Your task to perform on an android device: turn notification dots on Image 0: 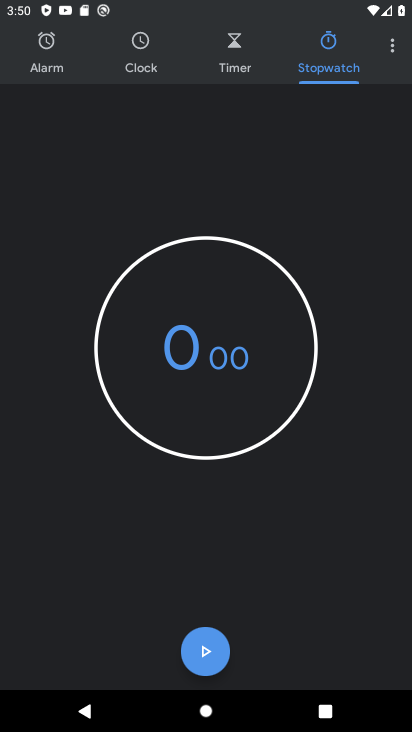
Step 0: press home button
Your task to perform on an android device: turn notification dots on Image 1: 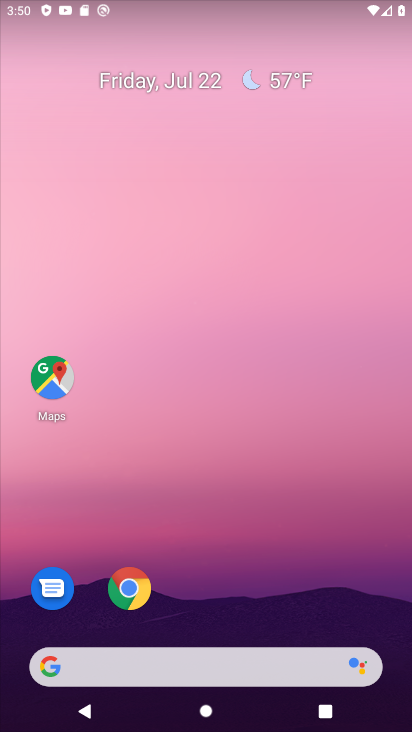
Step 1: drag from (163, 650) to (170, 58)
Your task to perform on an android device: turn notification dots on Image 2: 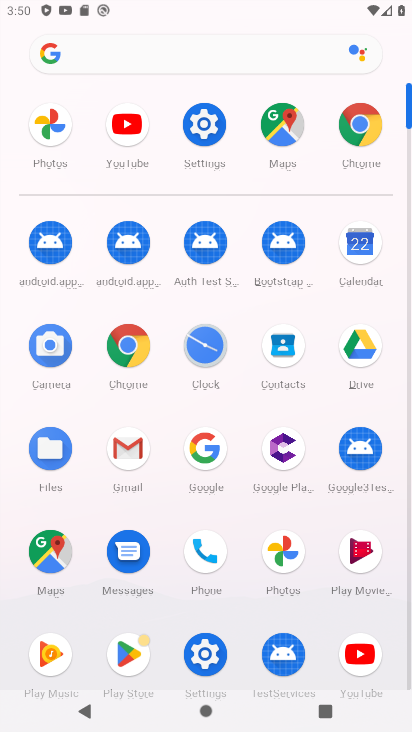
Step 2: click (222, 640)
Your task to perform on an android device: turn notification dots on Image 3: 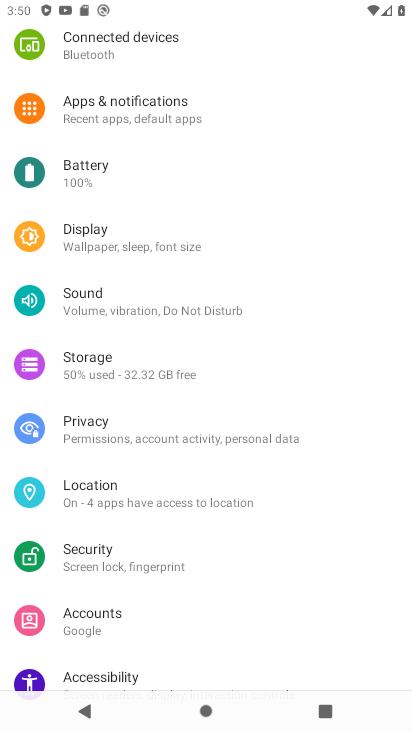
Step 3: click (129, 118)
Your task to perform on an android device: turn notification dots on Image 4: 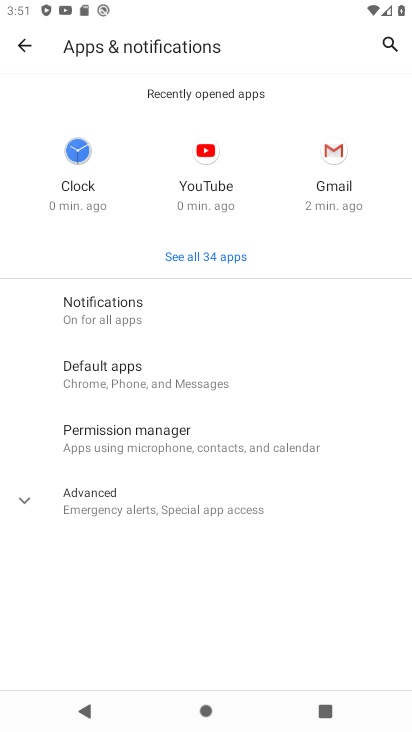
Step 4: click (115, 297)
Your task to perform on an android device: turn notification dots on Image 5: 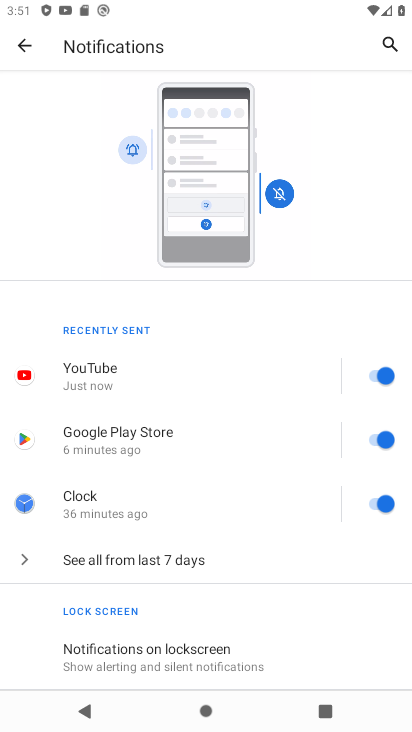
Step 5: drag from (220, 666) to (176, 185)
Your task to perform on an android device: turn notification dots on Image 6: 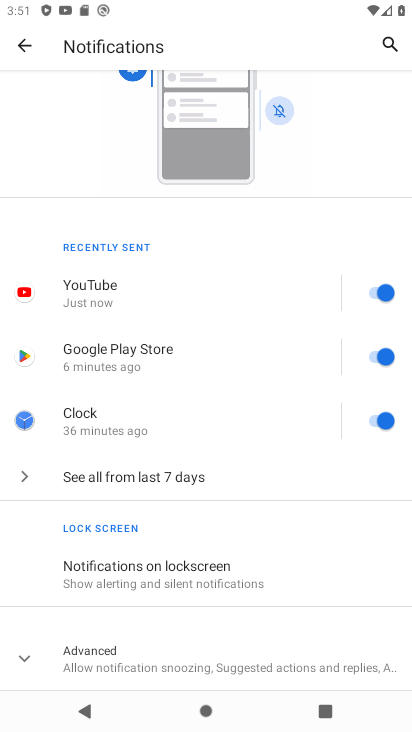
Step 6: click (212, 645)
Your task to perform on an android device: turn notification dots on Image 7: 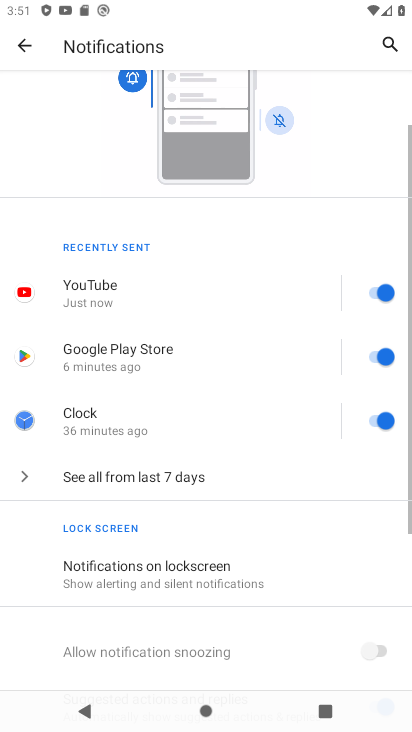
Step 7: task complete